Your task to perform on an android device: turn pop-ups on in chrome Image 0: 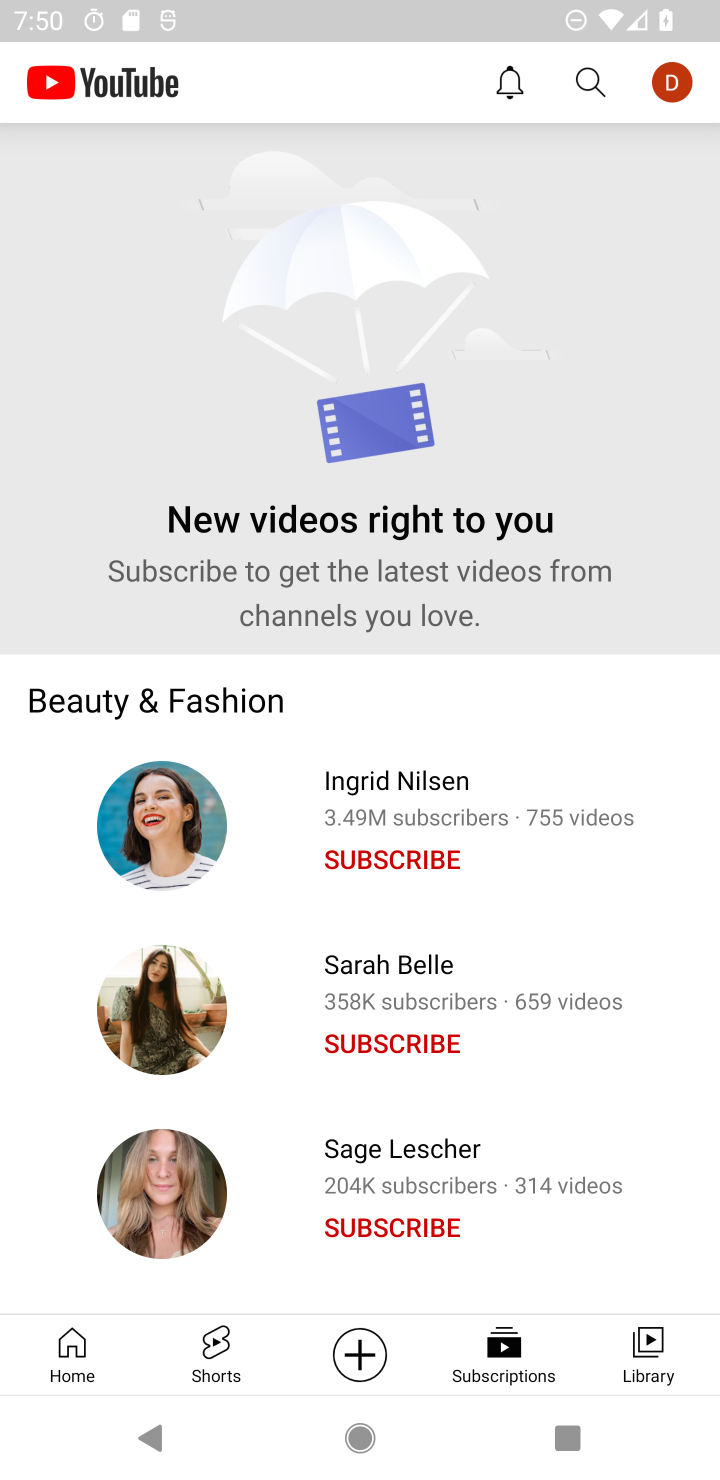
Step 0: press home button
Your task to perform on an android device: turn pop-ups on in chrome Image 1: 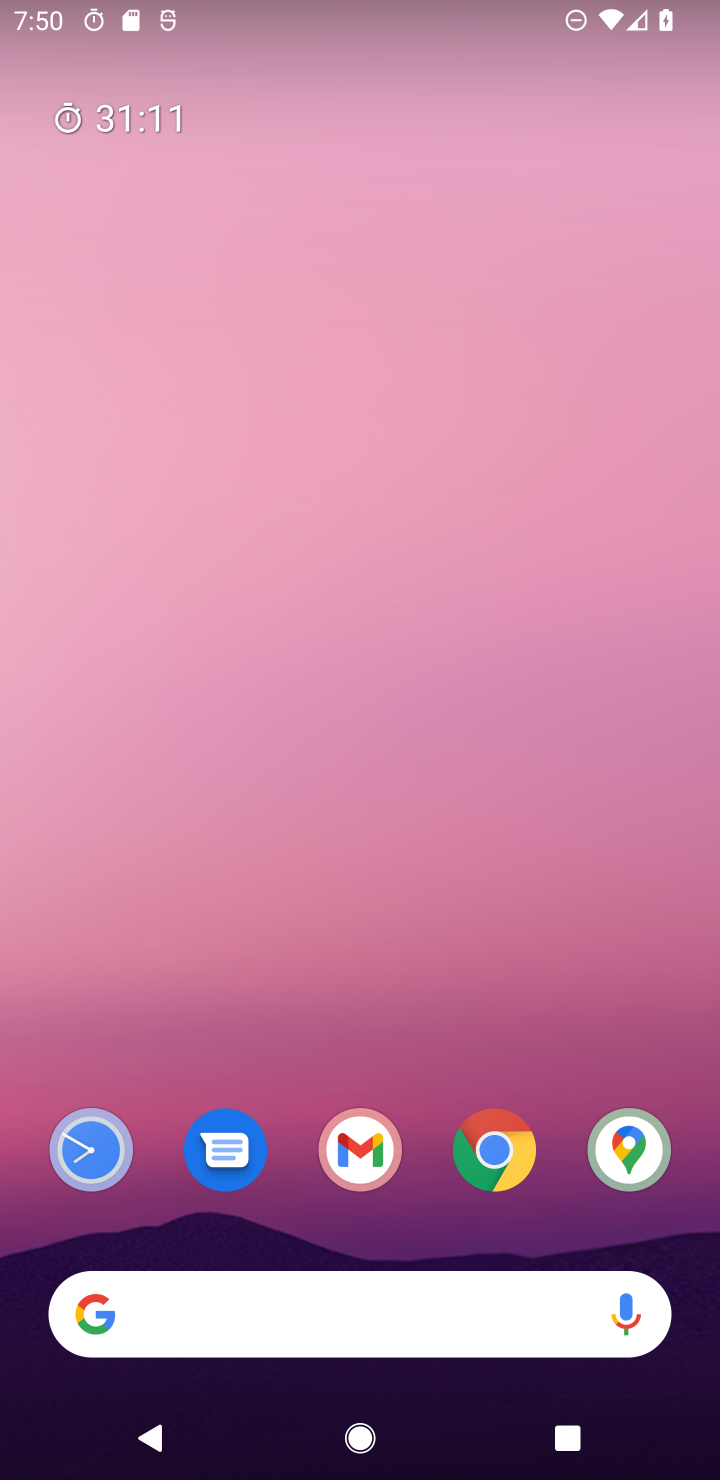
Step 1: drag from (381, 1353) to (633, 31)
Your task to perform on an android device: turn pop-ups on in chrome Image 2: 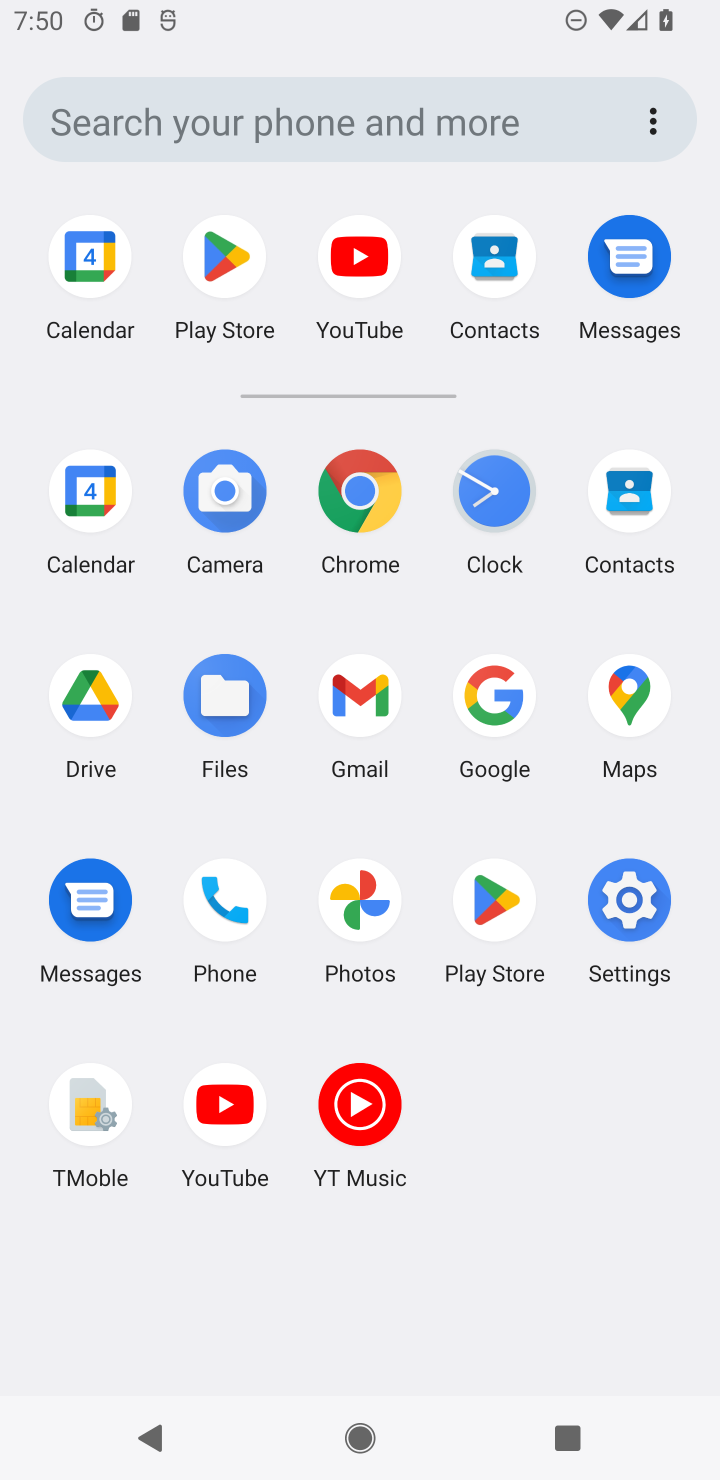
Step 2: click (370, 466)
Your task to perform on an android device: turn pop-ups on in chrome Image 3: 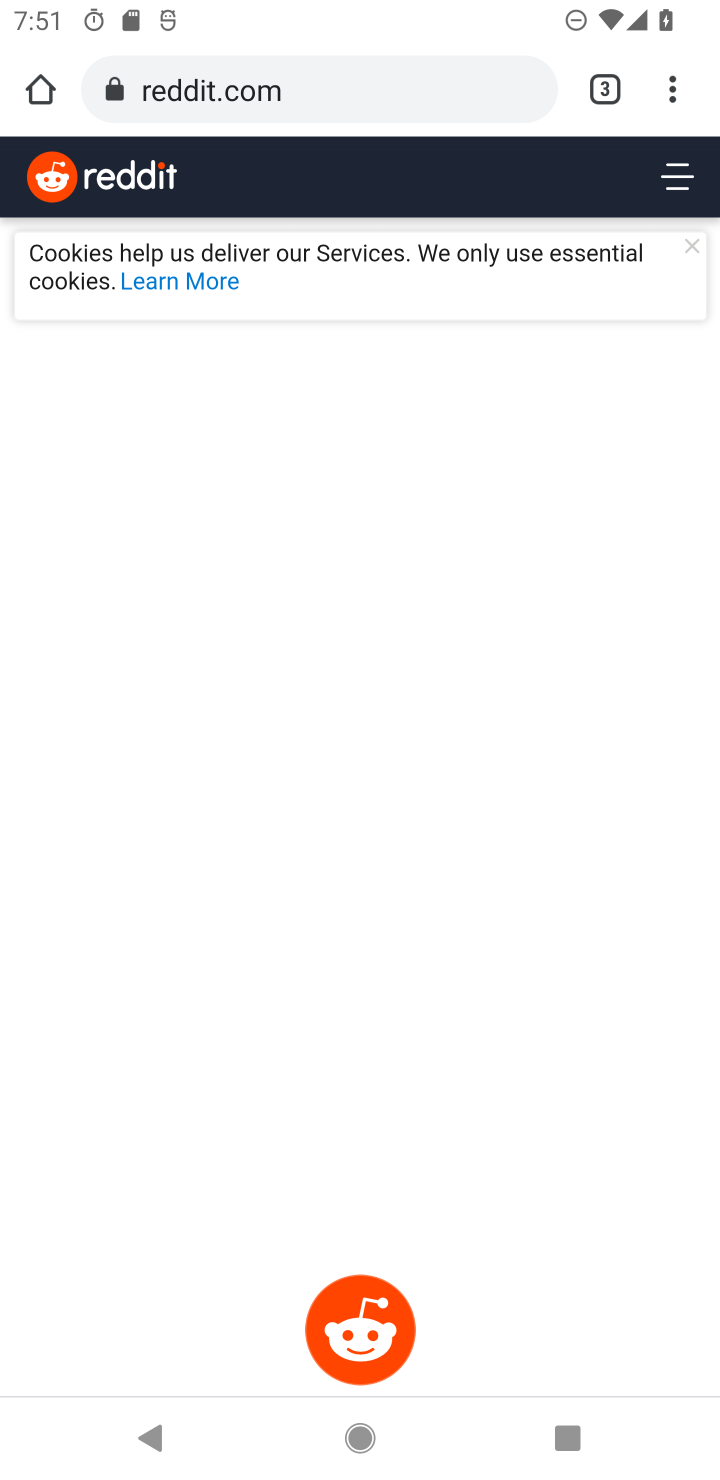
Step 3: drag from (658, 80) to (418, 1246)
Your task to perform on an android device: turn pop-ups on in chrome Image 4: 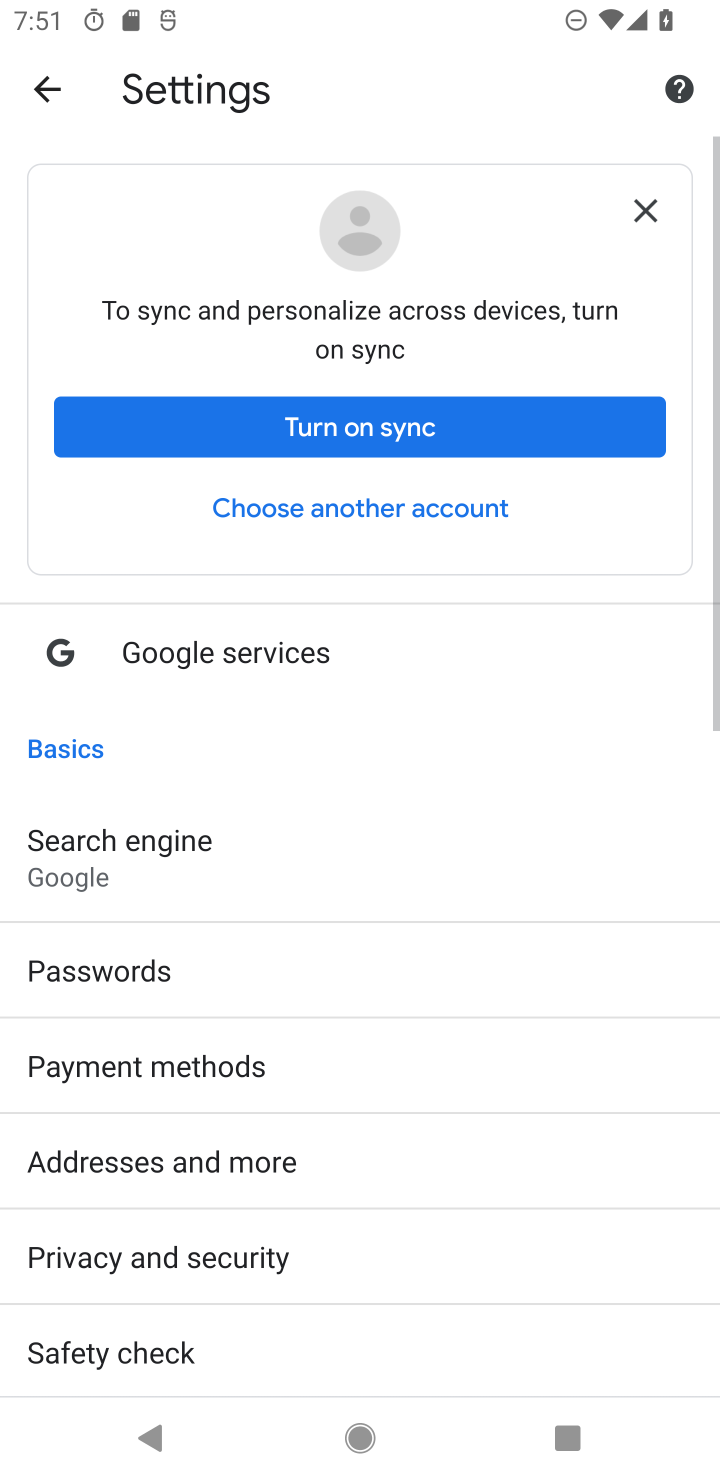
Step 4: drag from (532, 1299) to (567, 96)
Your task to perform on an android device: turn pop-ups on in chrome Image 5: 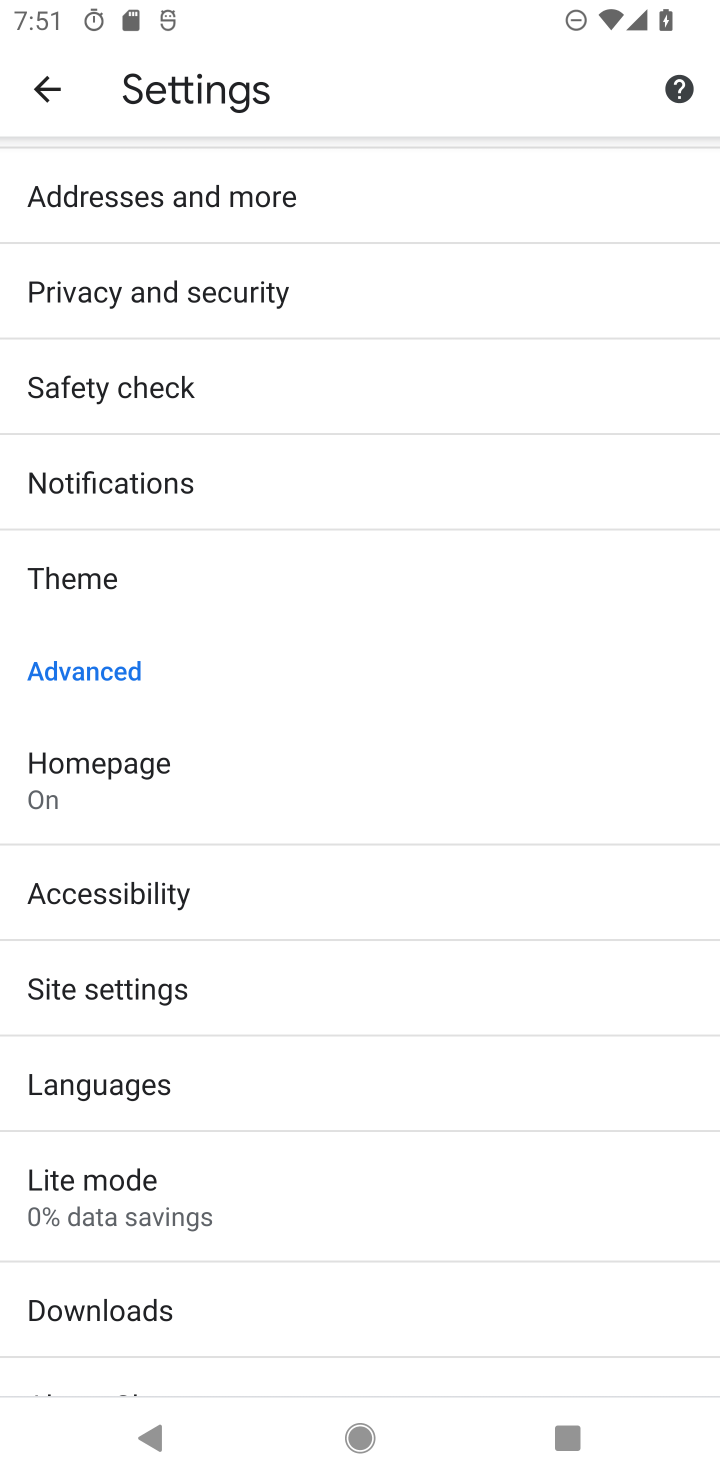
Step 5: click (126, 976)
Your task to perform on an android device: turn pop-ups on in chrome Image 6: 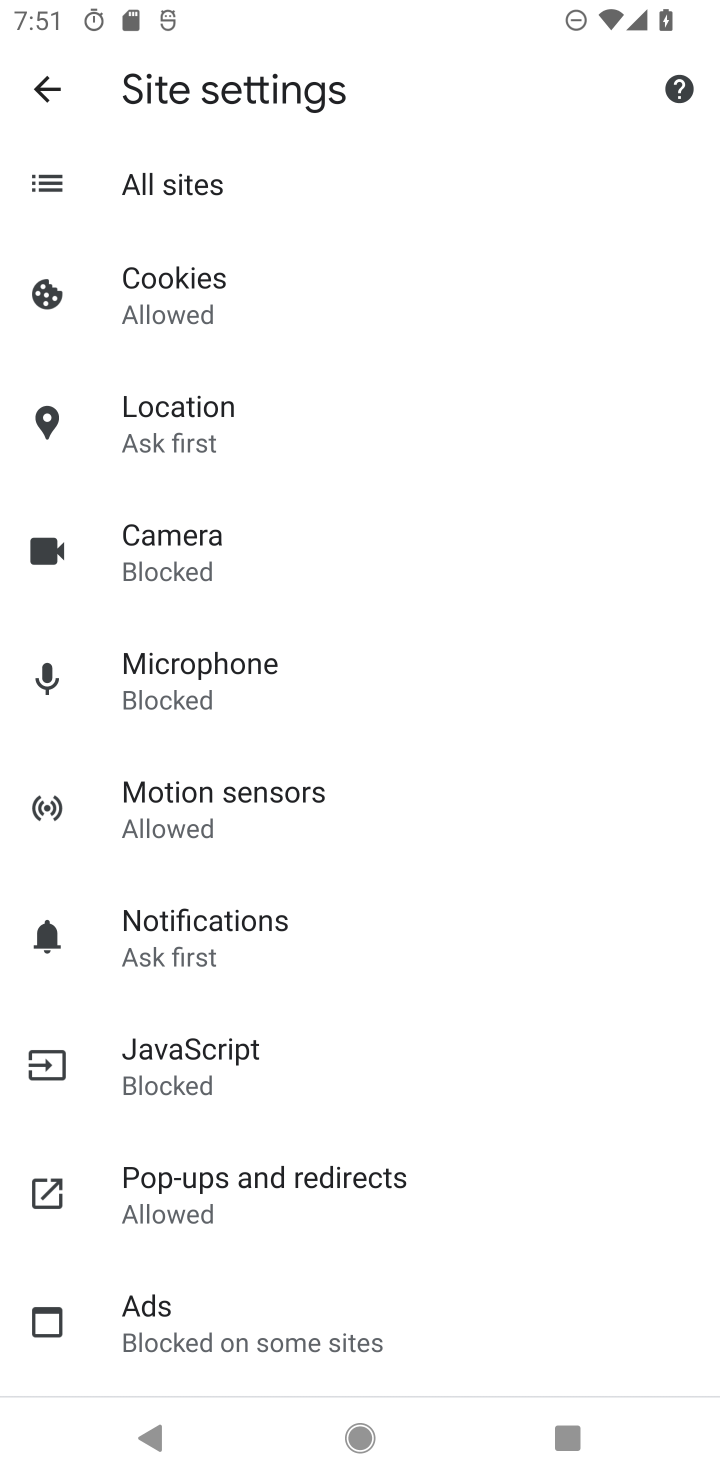
Step 6: click (191, 1205)
Your task to perform on an android device: turn pop-ups on in chrome Image 7: 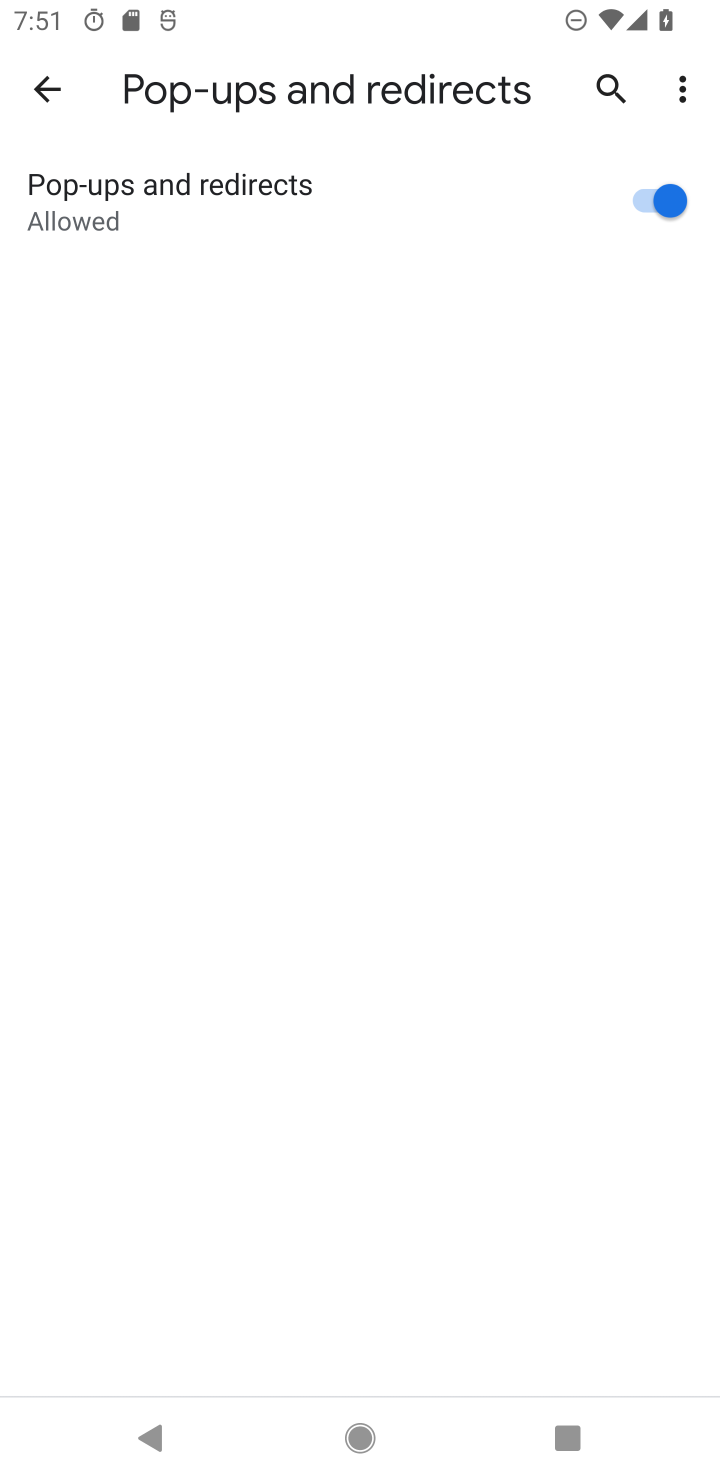
Step 7: task complete